Your task to perform on an android device: check out phone information Image 0: 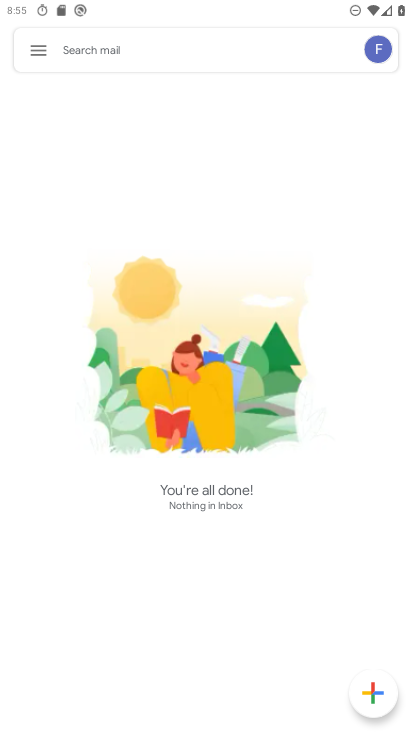
Step 0: press home button
Your task to perform on an android device: check out phone information Image 1: 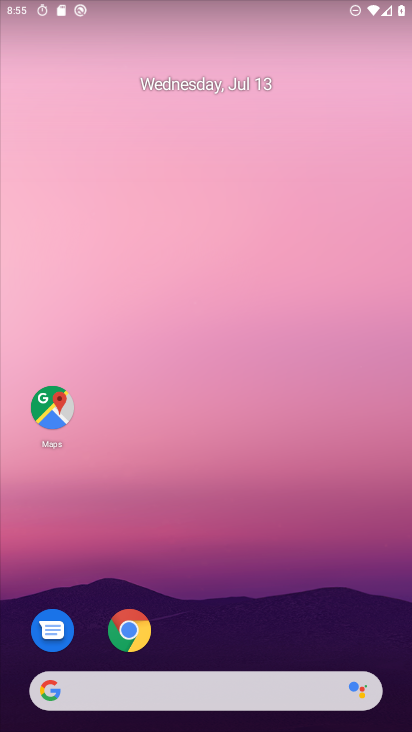
Step 1: drag from (374, 647) to (212, 34)
Your task to perform on an android device: check out phone information Image 2: 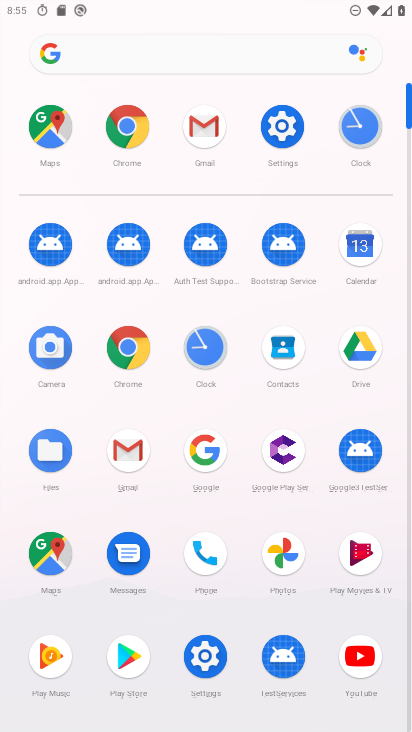
Step 2: click (208, 673)
Your task to perform on an android device: check out phone information Image 3: 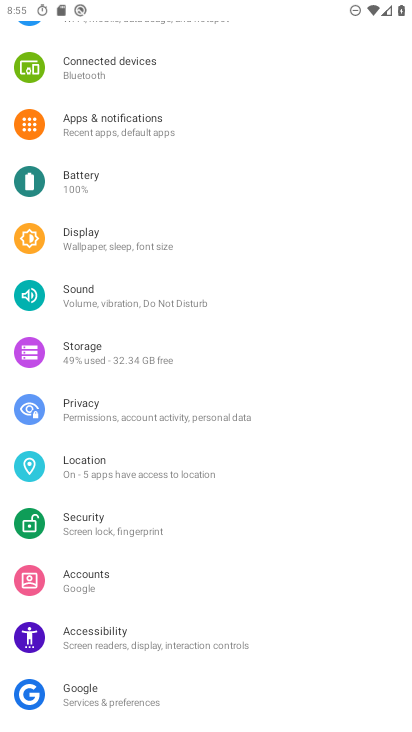
Step 3: task complete